Your task to perform on an android device: Check the weather Image 0: 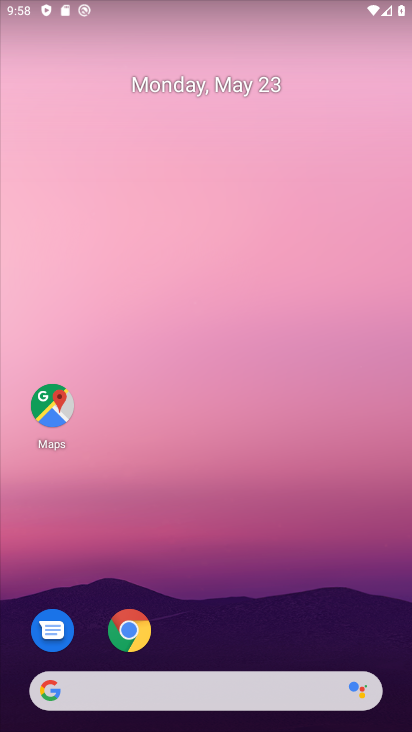
Step 0: click (91, 703)
Your task to perform on an android device: Check the weather Image 1: 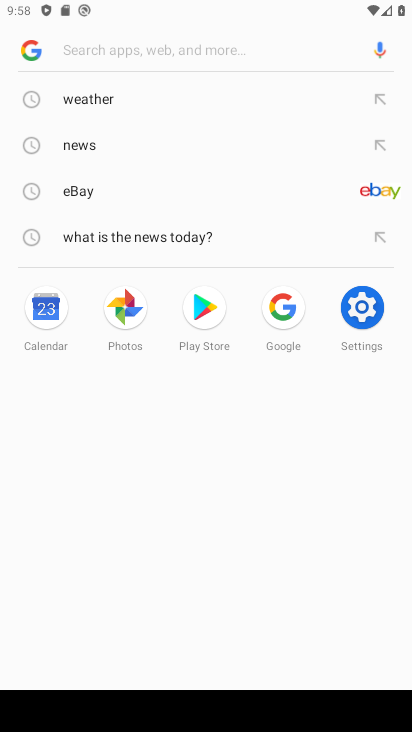
Step 1: click (86, 103)
Your task to perform on an android device: Check the weather Image 2: 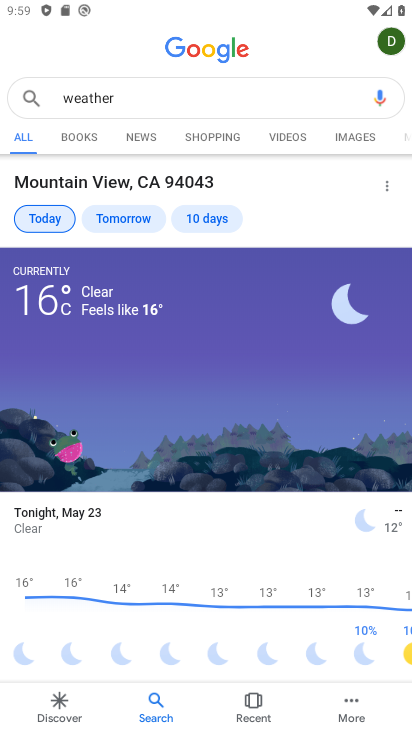
Step 2: task complete